Your task to perform on an android device: Set the phone to "Do not disturb". Image 0: 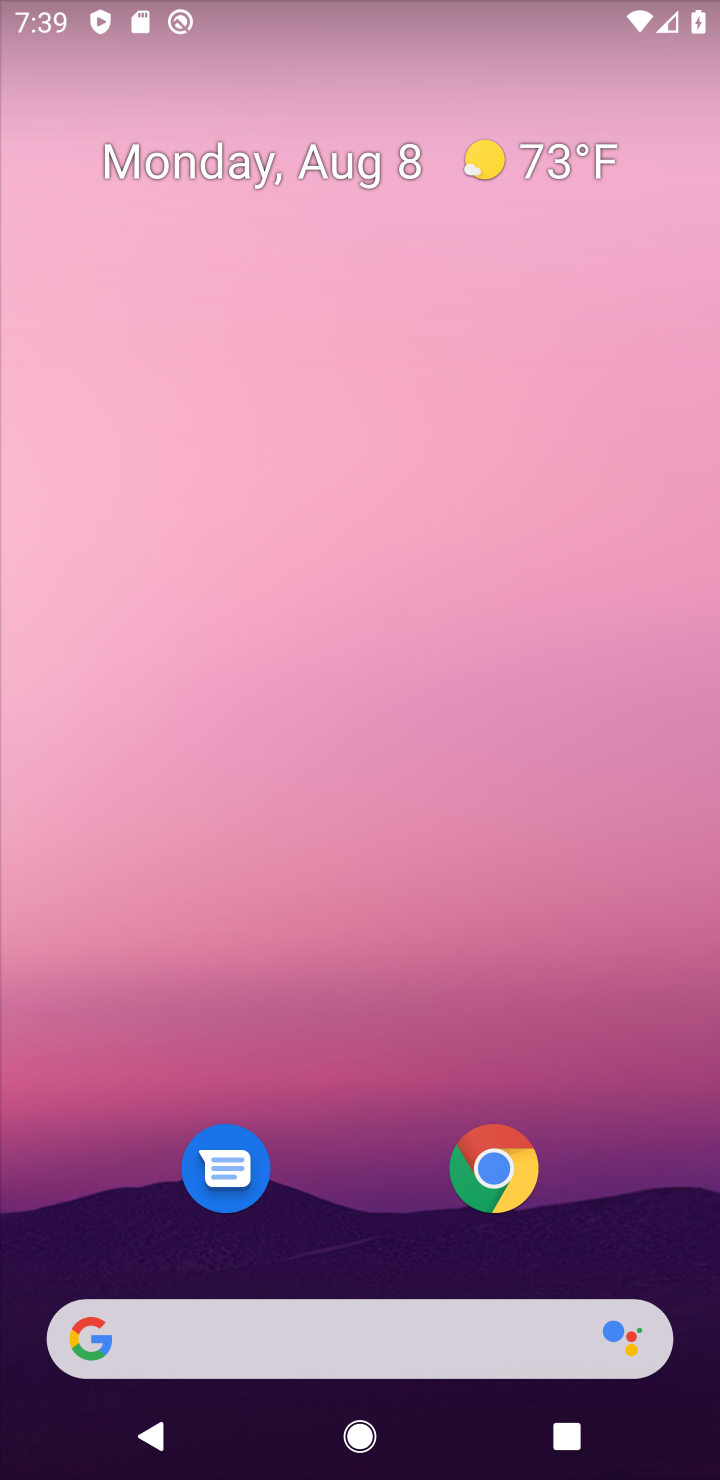
Step 0: drag from (305, 1358) to (588, 58)
Your task to perform on an android device: Set the phone to "Do not disturb". Image 1: 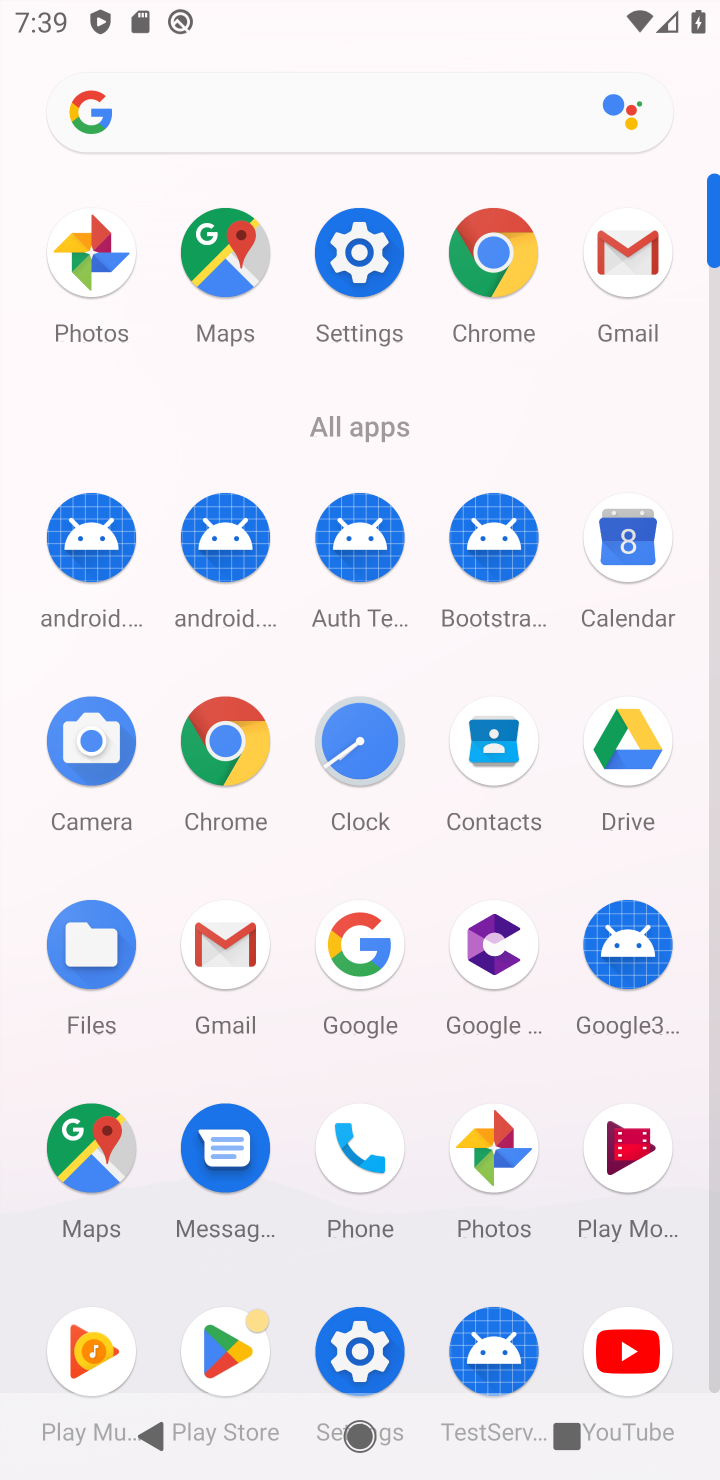
Step 1: click (359, 241)
Your task to perform on an android device: Set the phone to "Do not disturb". Image 2: 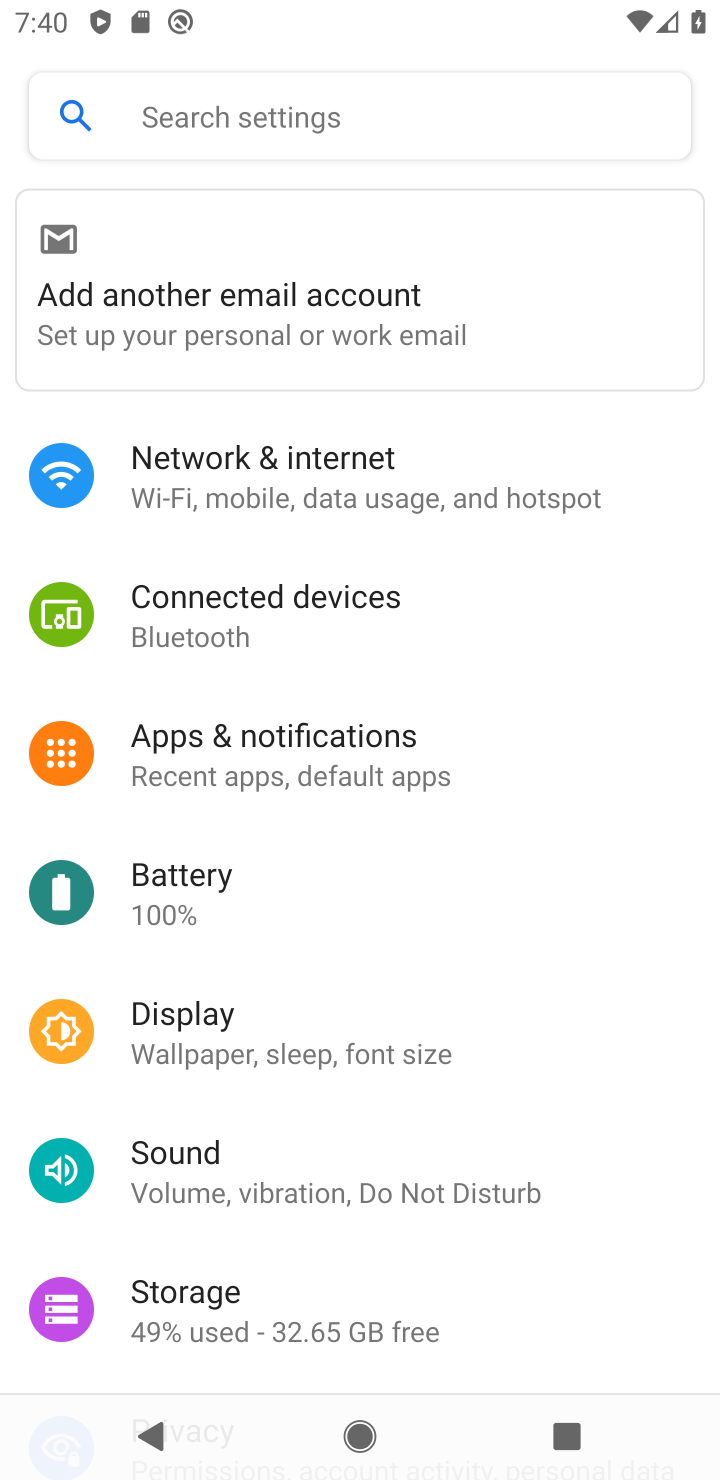
Step 2: click (244, 1184)
Your task to perform on an android device: Set the phone to "Do not disturb". Image 3: 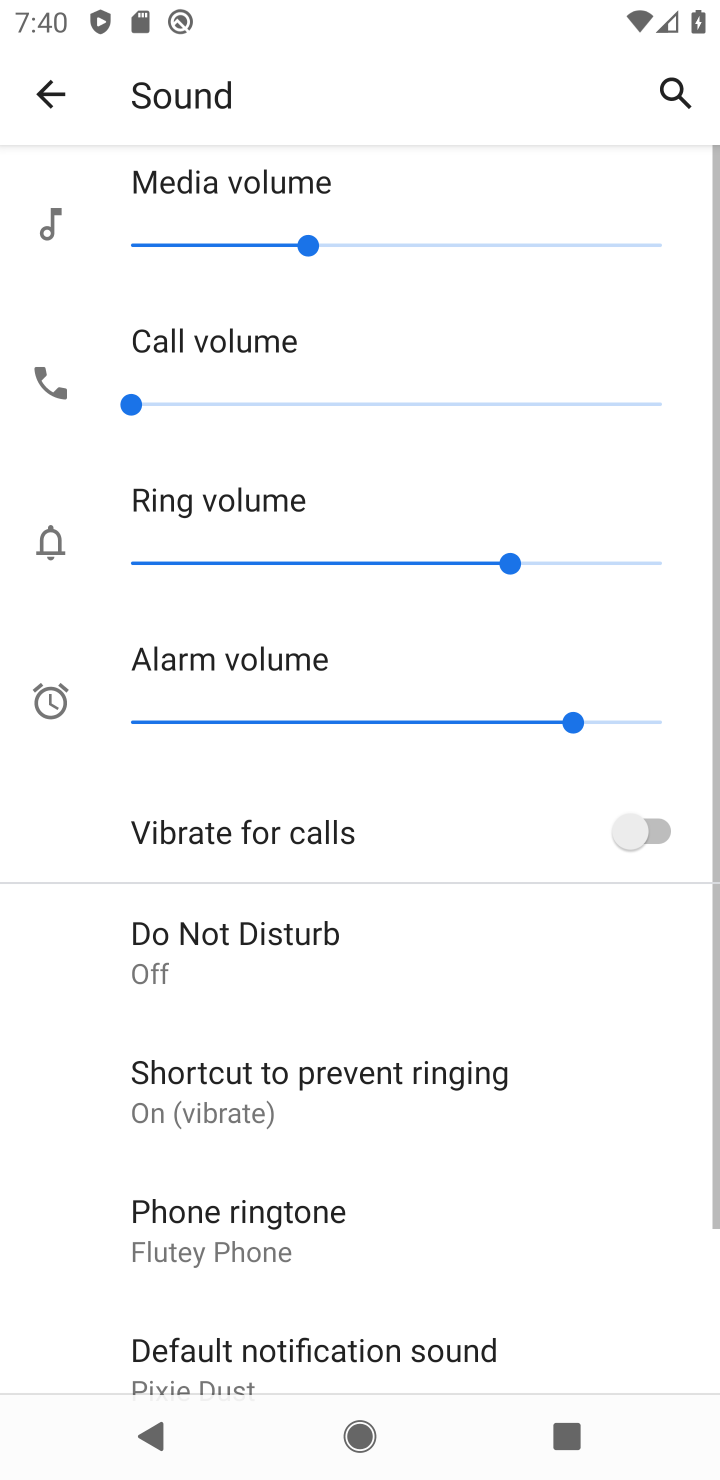
Step 3: drag from (506, 1240) to (642, 436)
Your task to perform on an android device: Set the phone to "Do not disturb". Image 4: 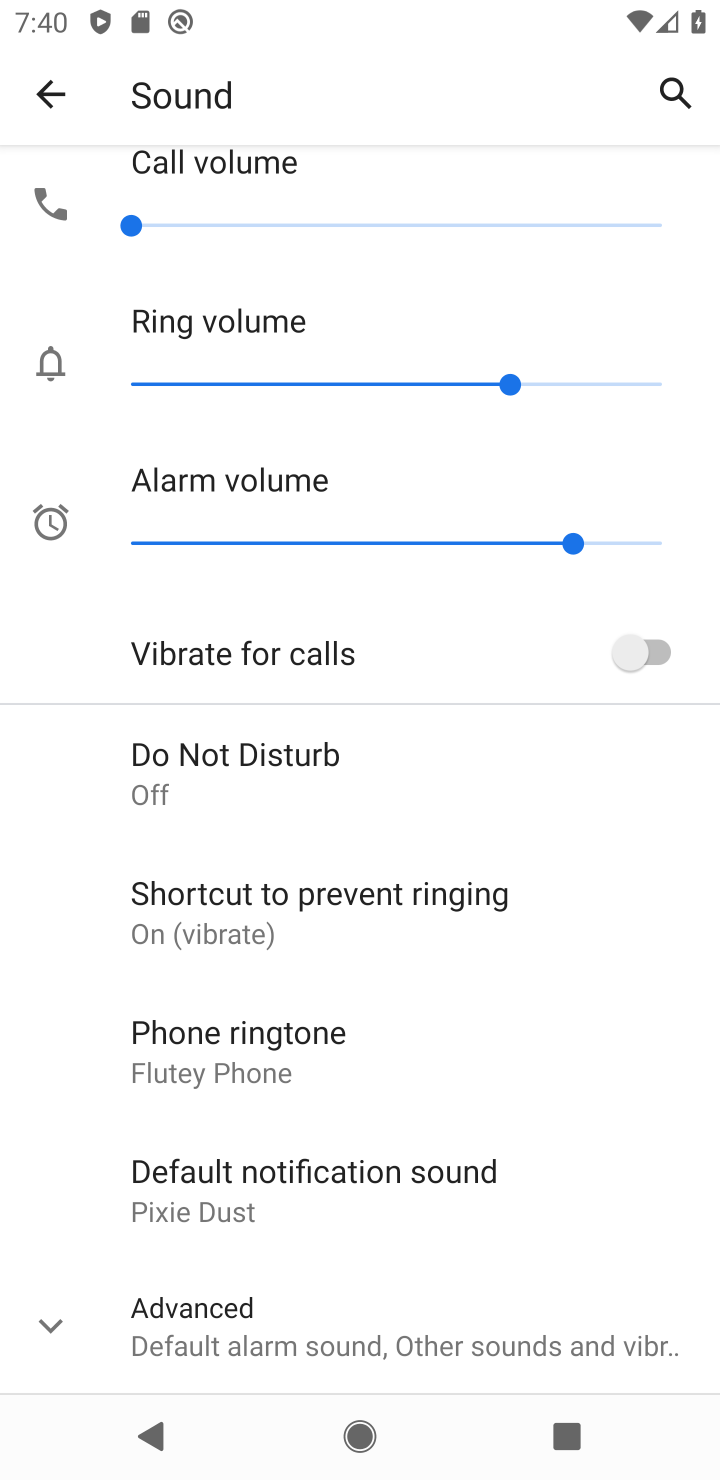
Step 4: click (210, 758)
Your task to perform on an android device: Set the phone to "Do not disturb". Image 5: 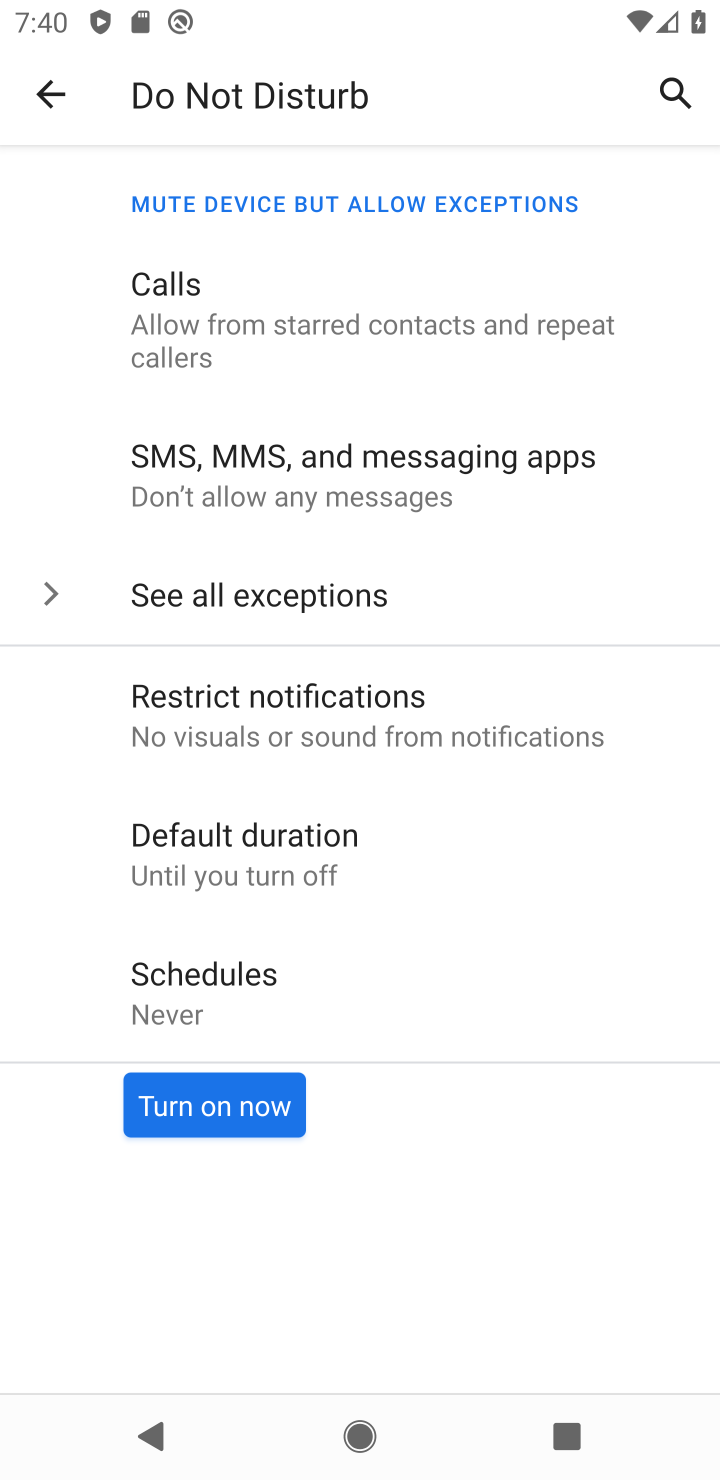
Step 5: click (214, 1102)
Your task to perform on an android device: Set the phone to "Do not disturb". Image 6: 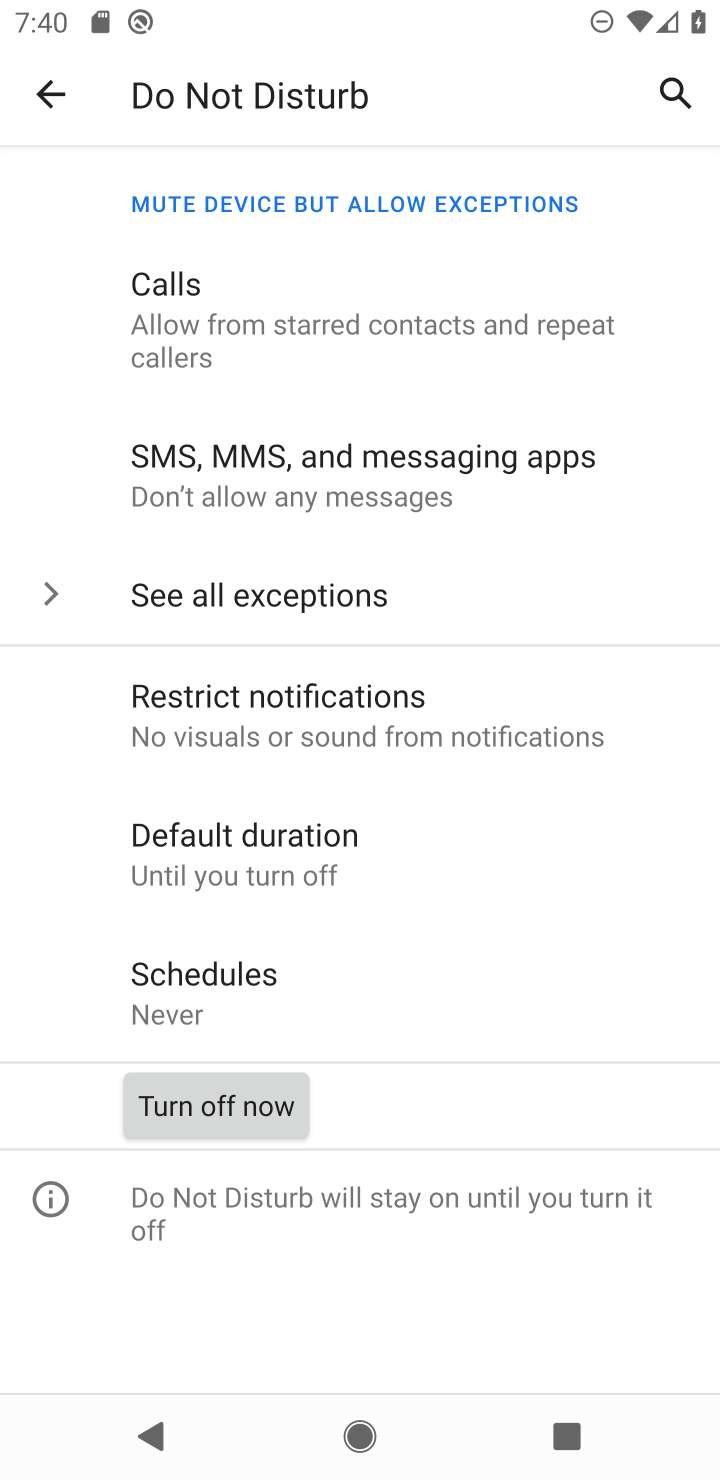
Step 6: task complete